Your task to perform on an android device: clear history in the chrome app Image 0: 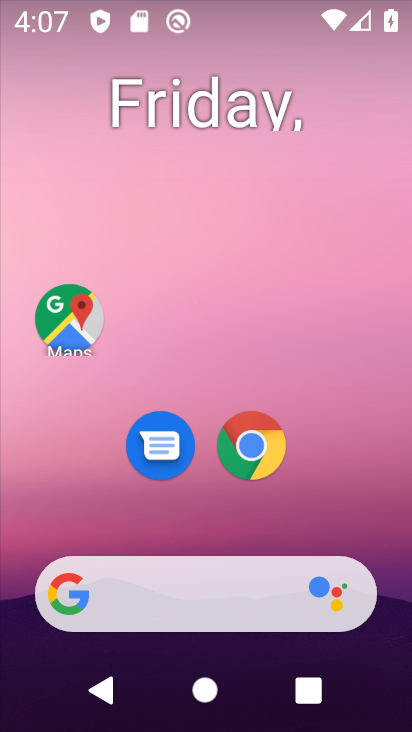
Step 0: press home button
Your task to perform on an android device: clear history in the chrome app Image 1: 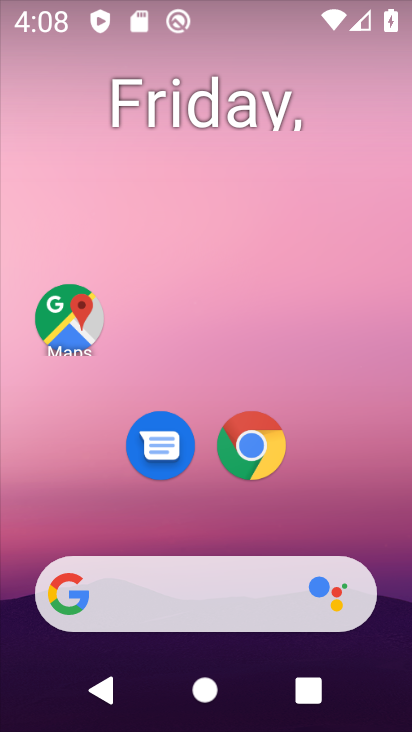
Step 1: click (249, 448)
Your task to perform on an android device: clear history in the chrome app Image 2: 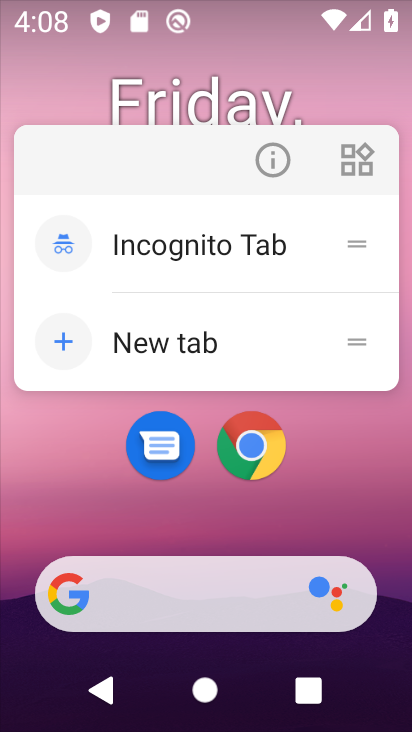
Step 2: click (269, 442)
Your task to perform on an android device: clear history in the chrome app Image 3: 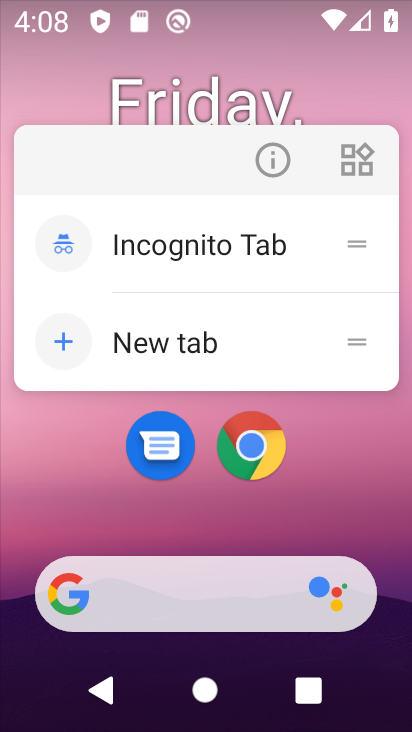
Step 3: click (405, 478)
Your task to perform on an android device: clear history in the chrome app Image 4: 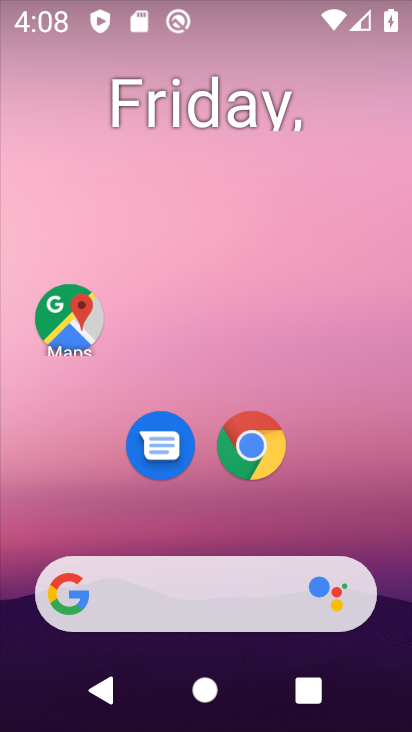
Step 4: click (382, 481)
Your task to perform on an android device: clear history in the chrome app Image 5: 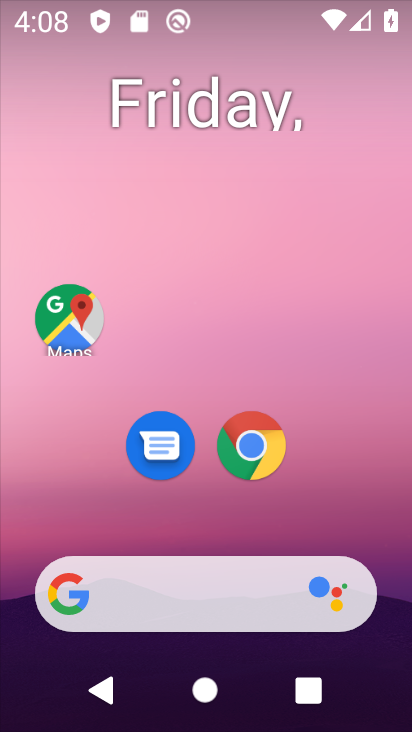
Step 5: drag from (310, 504) to (288, 0)
Your task to perform on an android device: clear history in the chrome app Image 6: 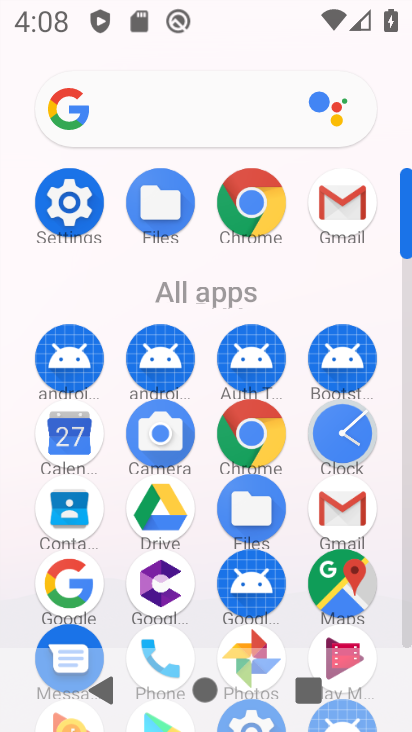
Step 6: click (270, 223)
Your task to perform on an android device: clear history in the chrome app Image 7: 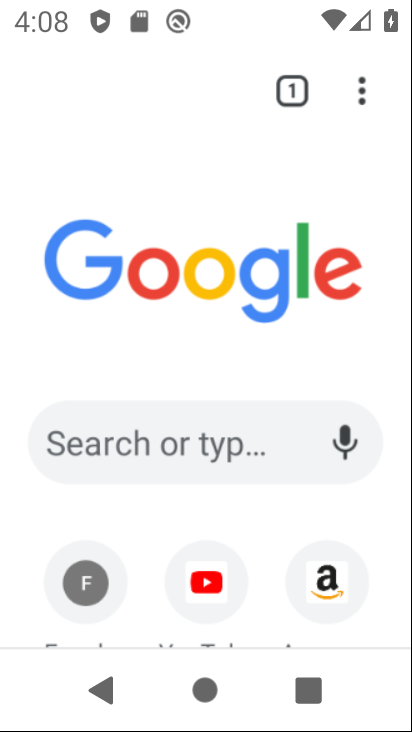
Step 7: click (254, 201)
Your task to perform on an android device: clear history in the chrome app Image 8: 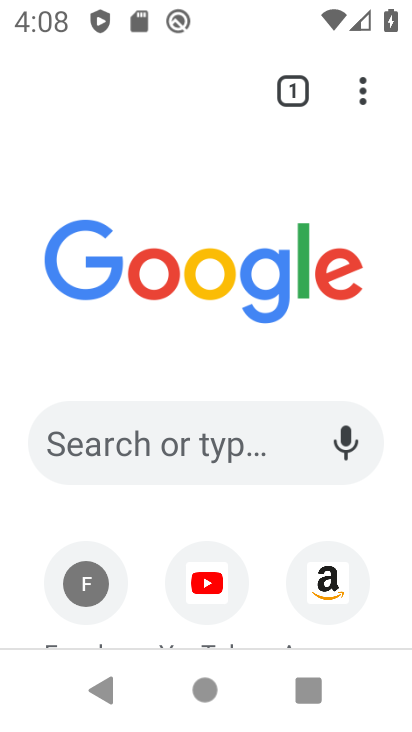
Step 8: type ""
Your task to perform on an android device: clear history in the chrome app Image 9: 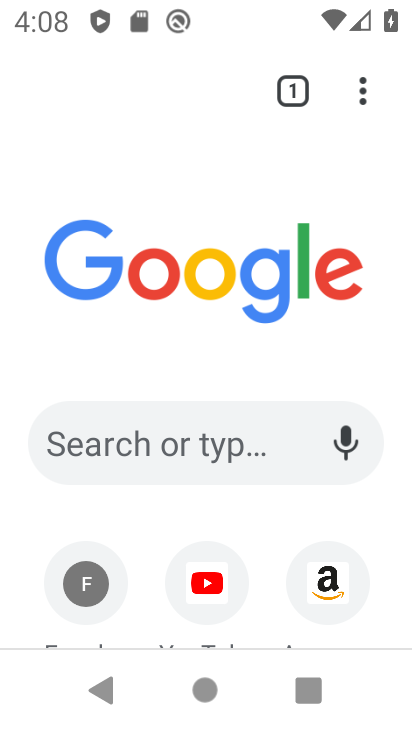
Step 9: press home button
Your task to perform on an android device: clear history in the chrome app Image 10: 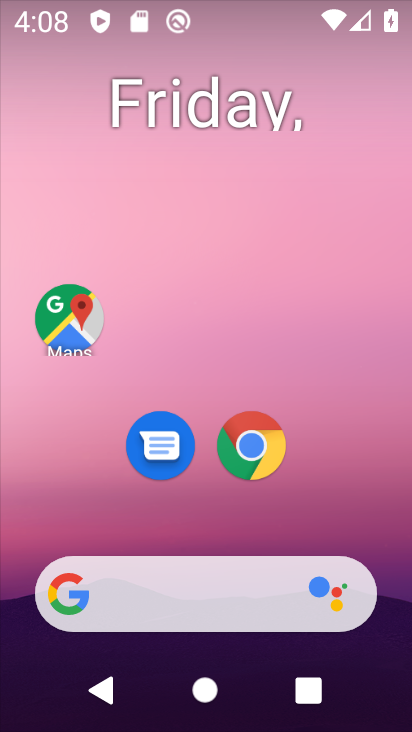
Step 10: click (258, 443)
Your task to perform on an android device: clear history in the chrome app Image 11: 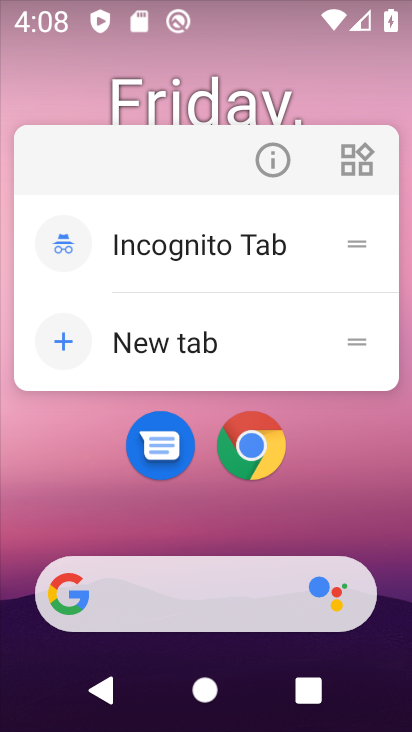
Step 11: click (281, 470)
Your task to perform on an android device: clear history in the chrome app Image 12: 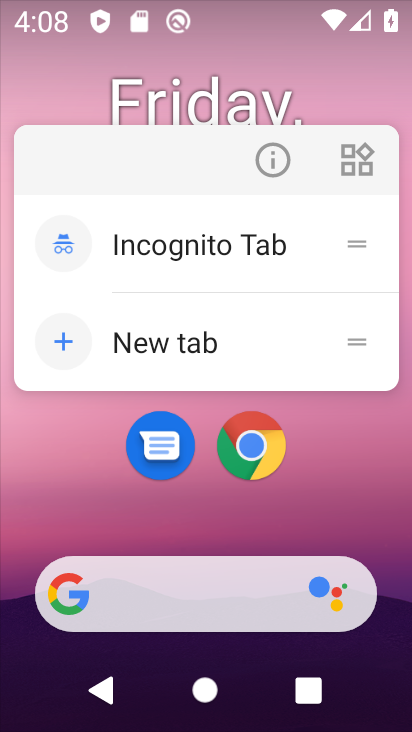
Step 12: drag from (301, 532) to (389, 22)
Your task to perform on an android device: clear history in the chrome app Image 13: 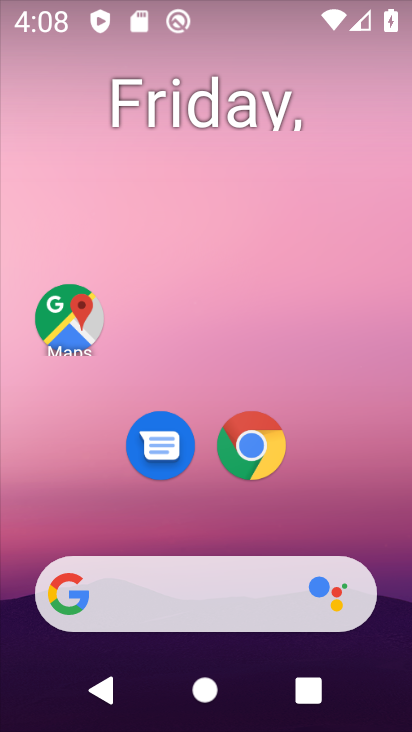
Step 13: drag from (307, 520) to (322, 94)
Your task to perform on an android device: clear history in the chrome app Image 14: 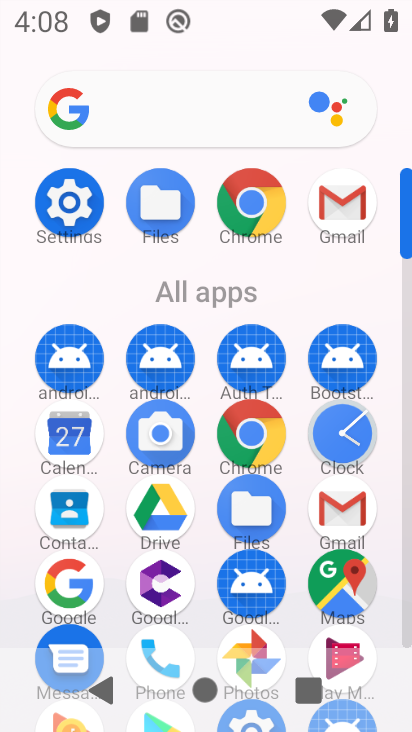
Step 14: click (260, 206)
Your task to perform on an android device: clear history in the chrome app Image 15: 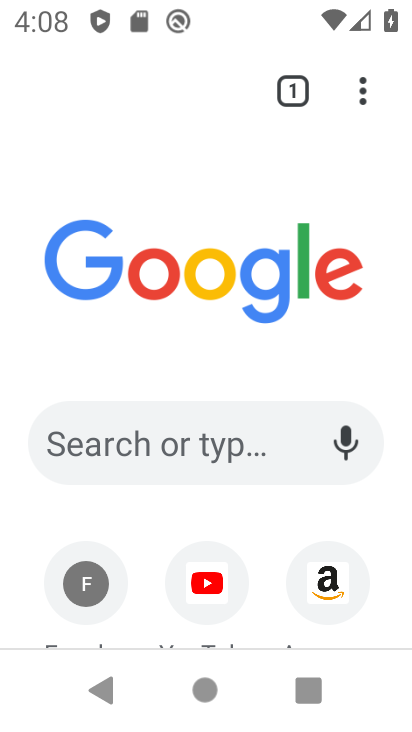
Step 15: drag from (363, 88) to (168, 406)
Your task to perform on an android device: clear history in the chrome app Image 16: 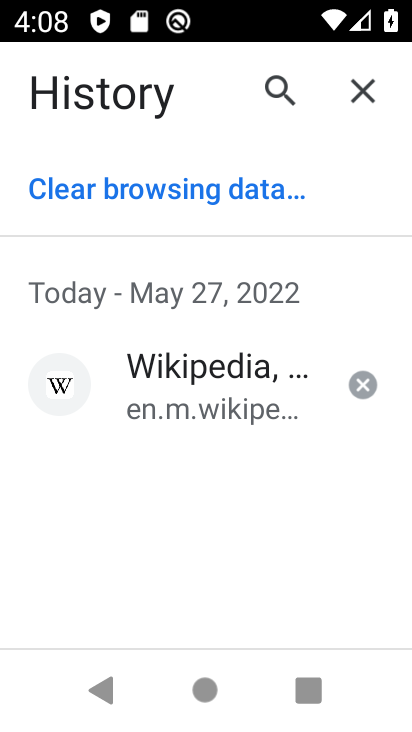
Step 16: click (168, 173)
Your task to perform on an android device: clear history in the chrome app Image 17: 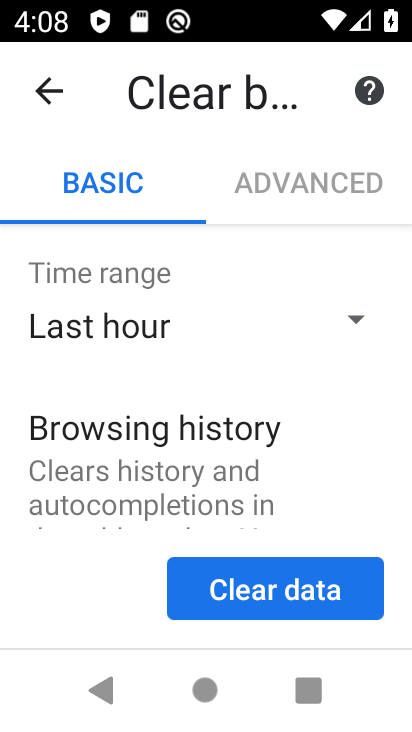
Step 17: click (287, 593)
Your task to perform on an android device: clear history in the chrome app Image 18: 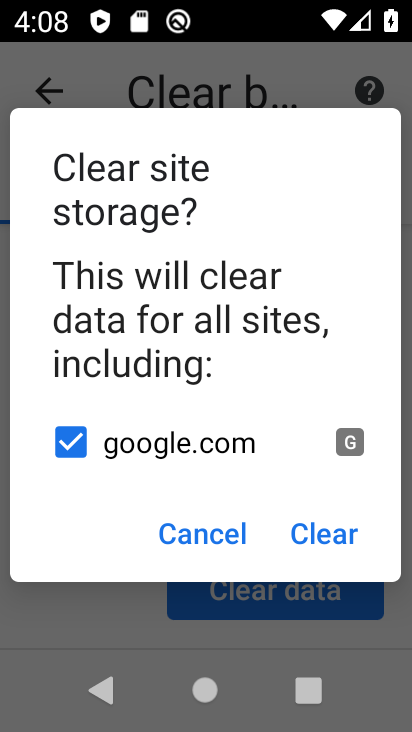
Step 18: click (329, 528)
Your task to perform on an android device: clear history in the chrome app Image 19: 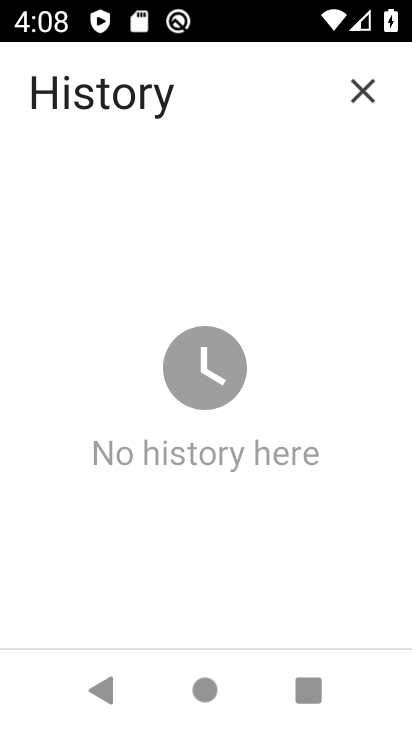
Step 19: task complete